Your task to perform on an android device: Search for macbook air on amazon.com, select the first entry, add it to the cart, then select checkout. Image 0: 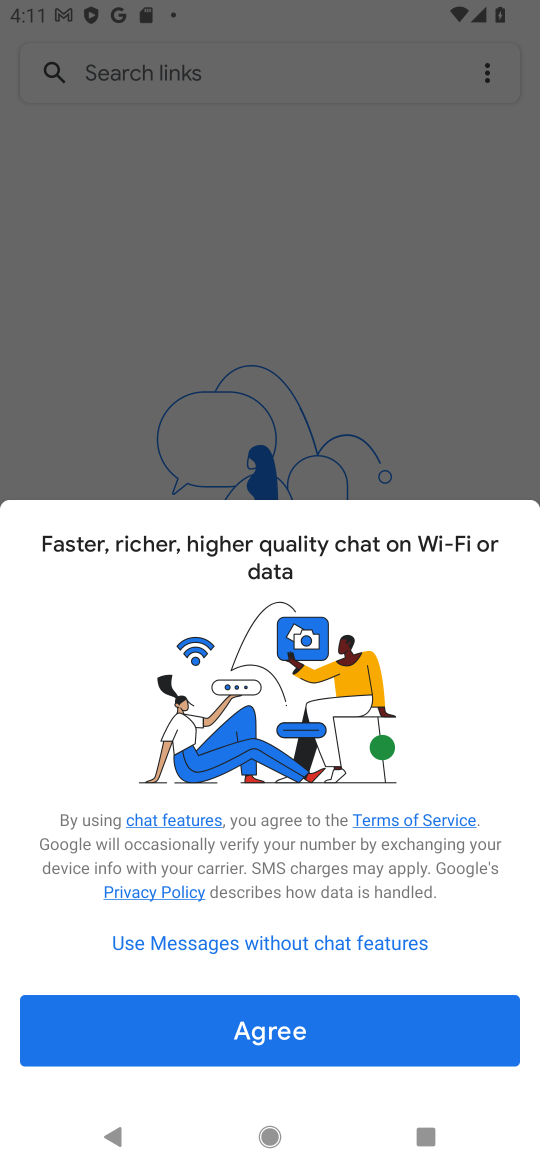
Step 0: press home button
Your task to perform on an android device: Search for macbook air on amazon.com, select the first entry, add it to the cart, then select checkout. Image 1: 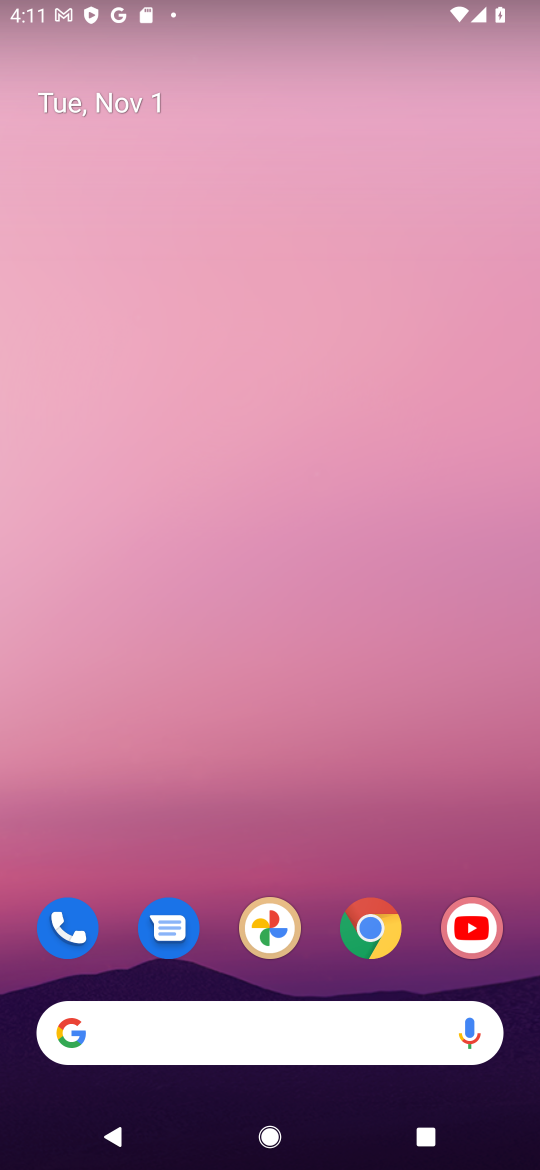
Step 1: click (380, 947)
Your task to perform on an android device: Search for macbook air on amazon.com, select the first entry, add it to the cart, then select checkout. Image 2: 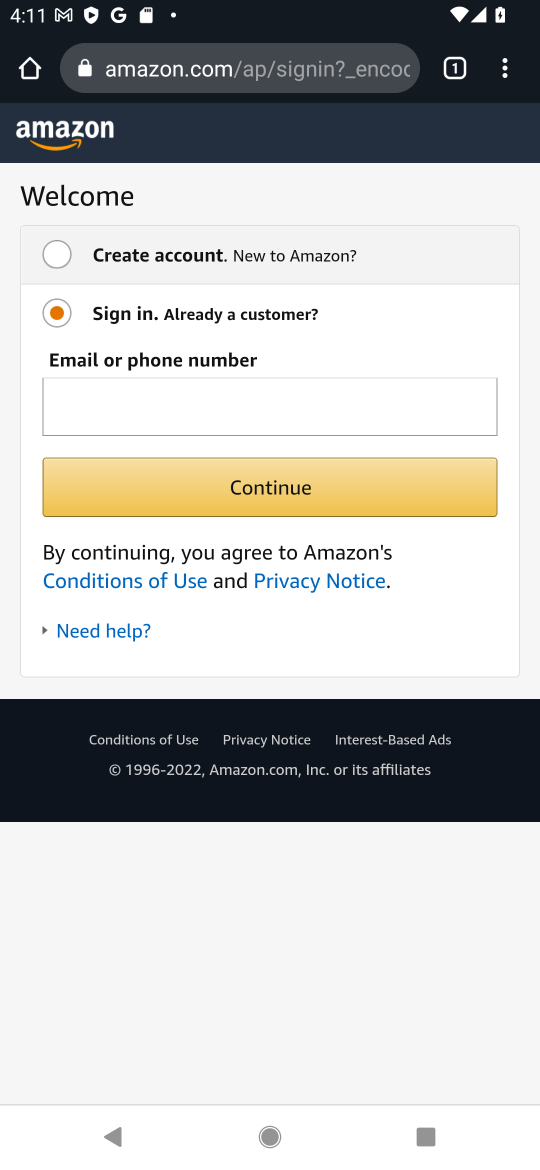
Step 2: click (243, 73)
Your task to perform on an android device: Search for macbook air on amazon.com, select the first entry, add it to the cart, then select checkout. Image 3: 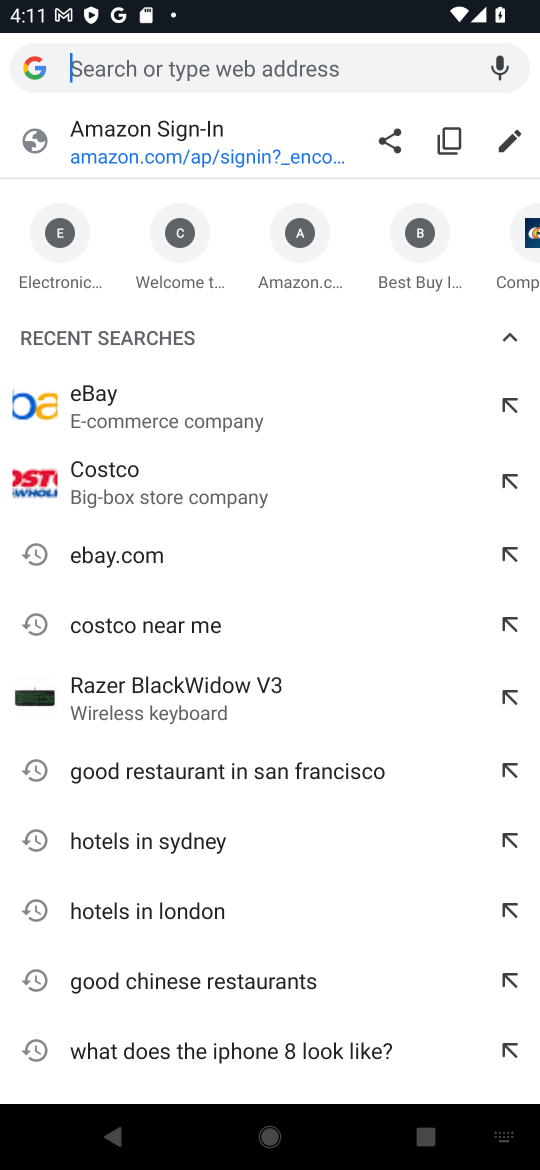
Step 3: type "amazon.com"
Your task to perform on an android device: Search for macbook air on amazon.com, select the first entry, add it to the cart, then select checkout. Image 4: 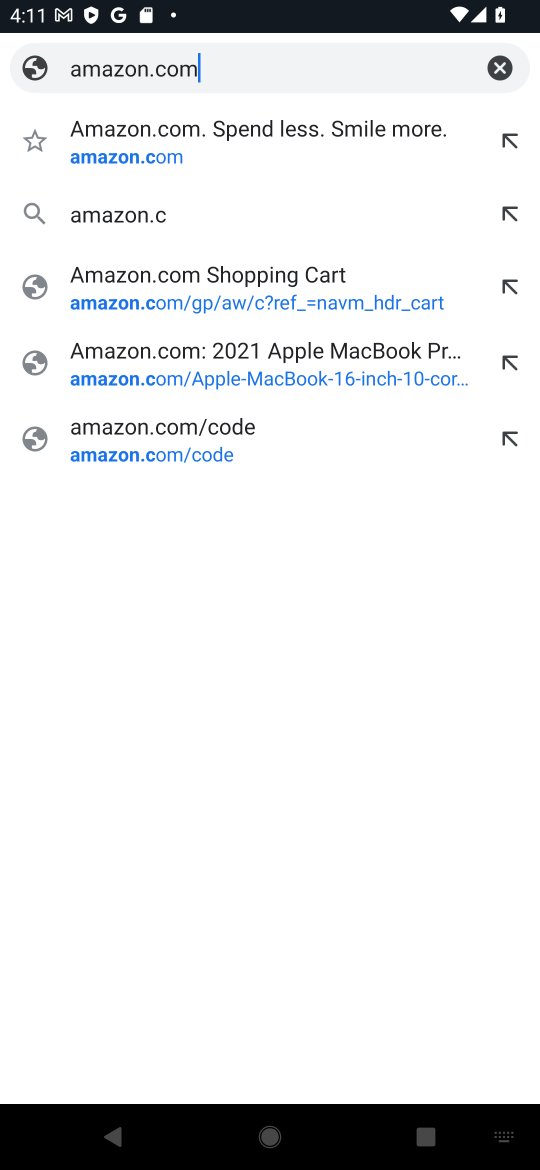
Step 4: type ""
Your task to perform on an android device: Search for macbook air on amazon.com, select the first entry, add it to the cart, then select checkout. Image 5: 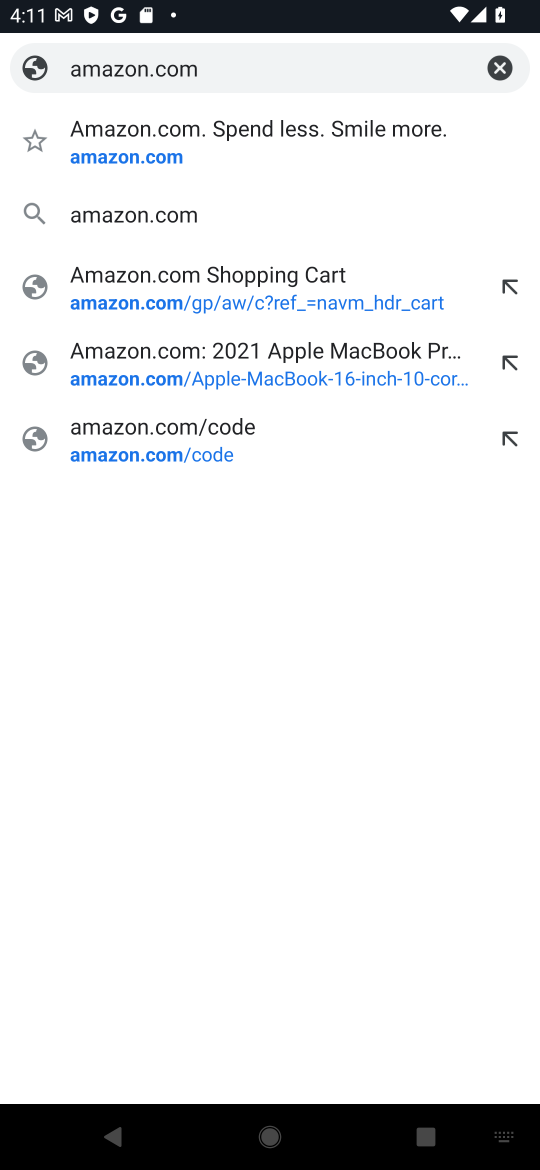
Step 5: press enter
Your task to perform on an android device: Search for macbook air on amazon.com, select the first entry, add it to the cart, then select checkout. Image 6: 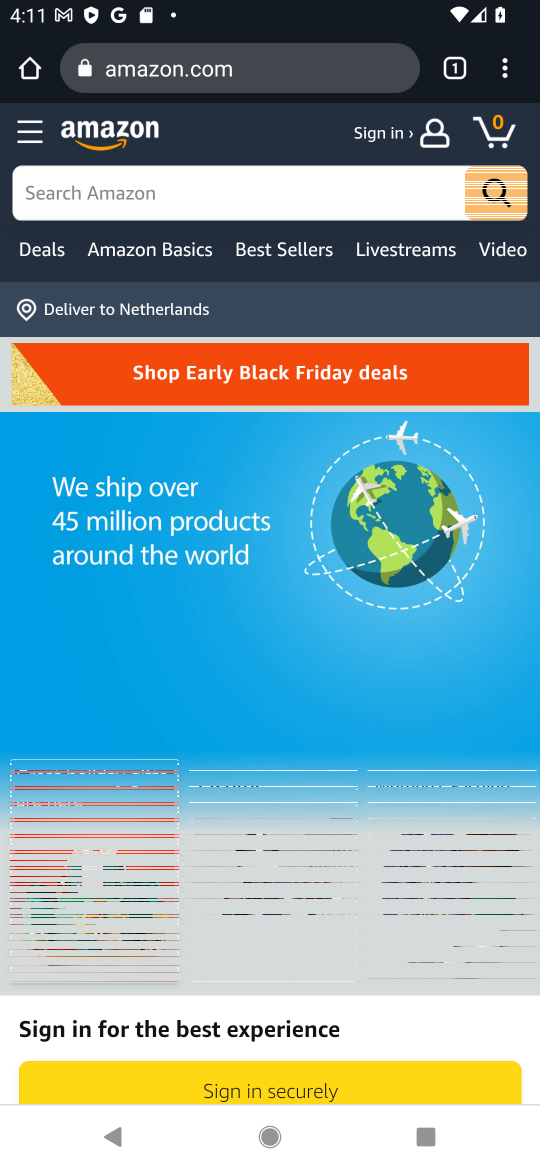
Step 6: click (205, 184)
Your task to perform on an android device: Search for macbook air on amazon.com, select the first entry, add it to the cart, then select checkout. Image 7: 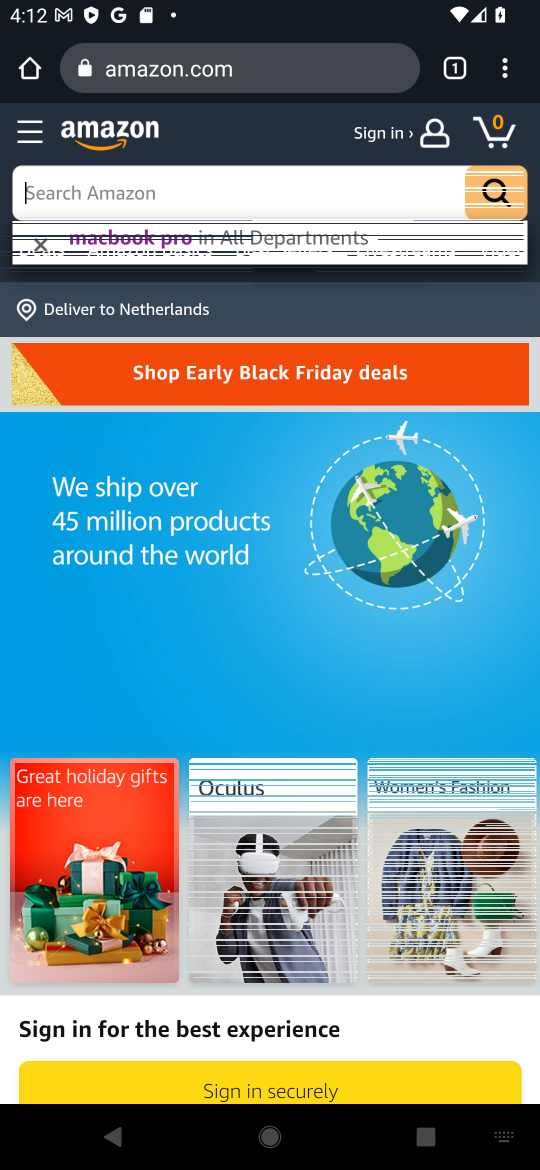
Step 7: type "macbook air"
Your task to perform on an android device: Search for macbook air on amazon.com, select the first entry, add it to the cart, then select checkout. Image 8: 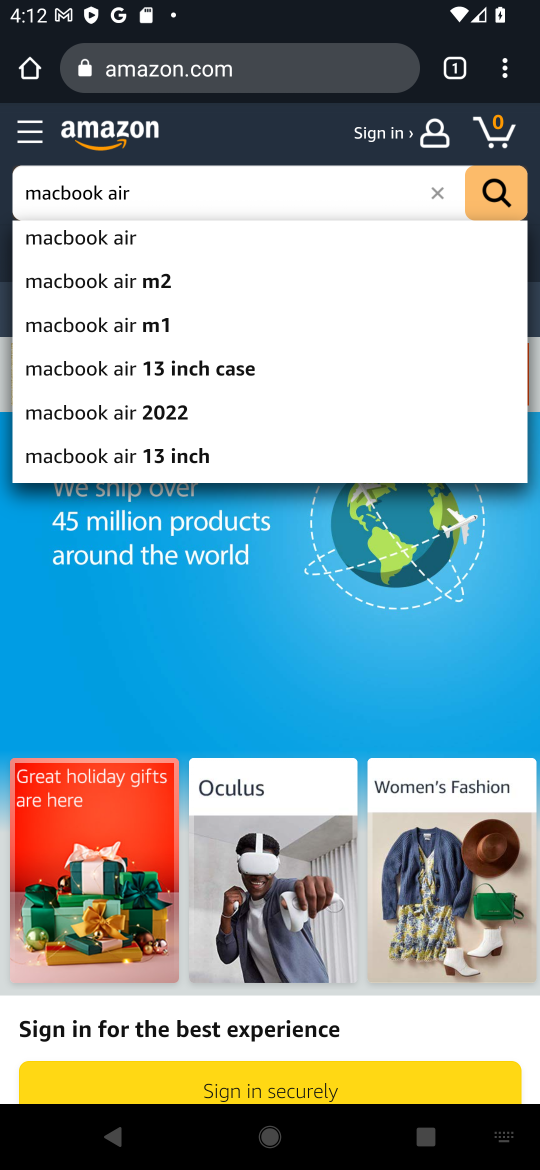
Step 8: click (497, 198)
Your task to perform on an android device: Search for macbook air on amazon.com, select the first entry, add it to the cart, then select checkout. Image 9: 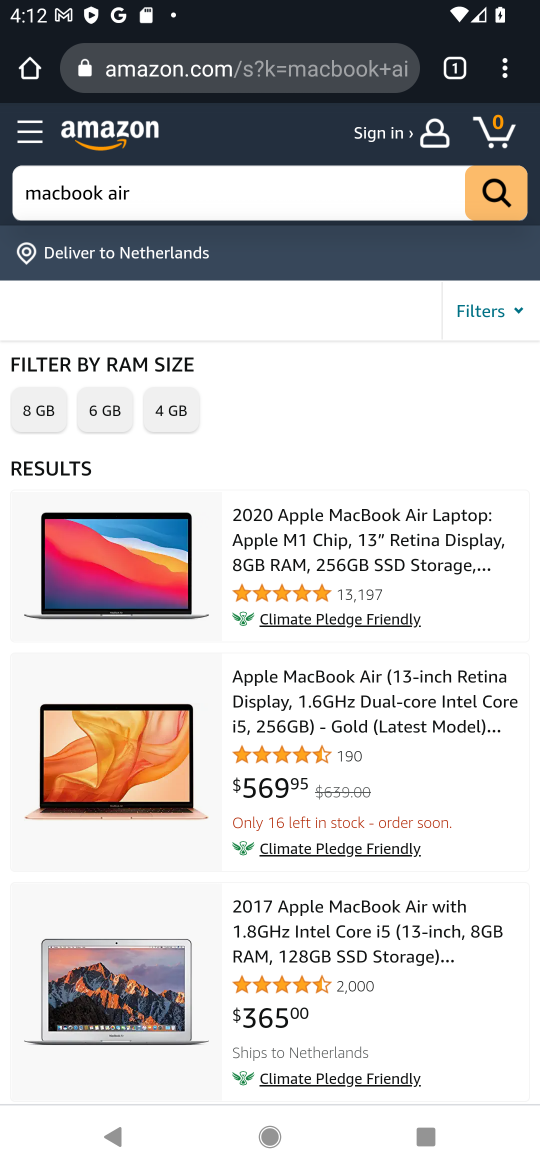
Step 9: click (378, 531)
Your task to perform on an android device: Search for macbook air on amazon.com, select the first entry, add it to the cart, then select checkout. Image 10: 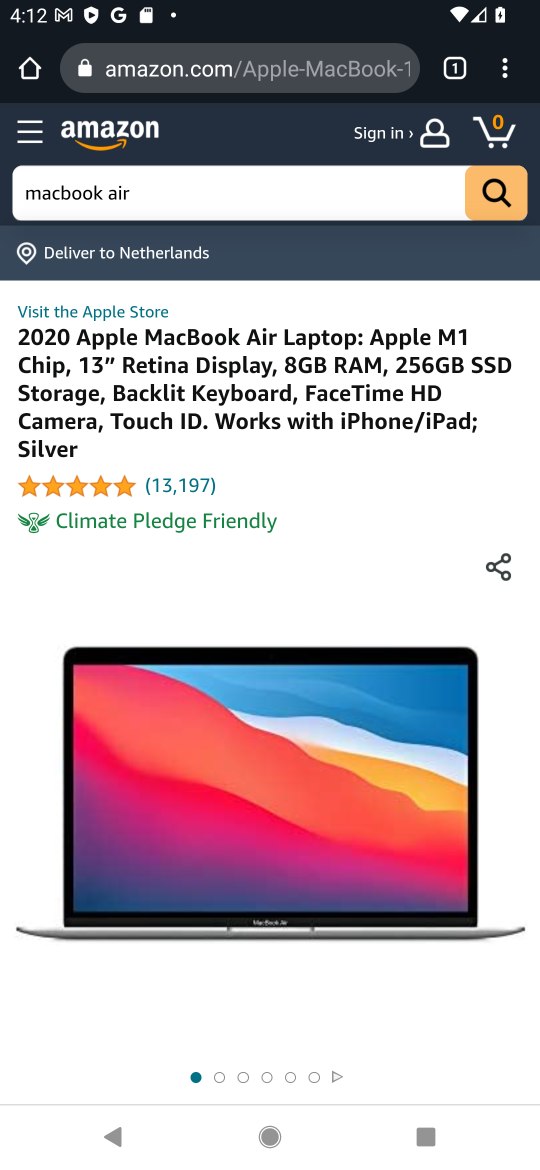
Step 10: drag from (307, 719) to (268, 290)
Your task to perform on an android device: Search for macbook air on amazon.com, select the first entry, add it to the cart, then select checkout. Image 11: 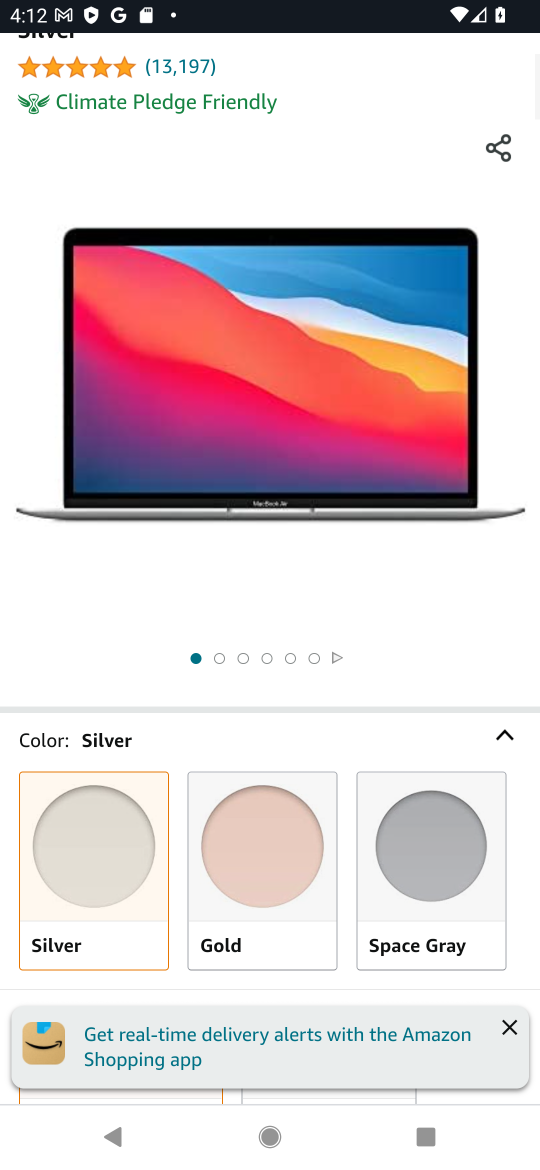
Step 11: drag from (286, 901) to (256, 564)
Your task to perform on an android device: Search for macbook air on amazon.com, select the first entry, add it to the cart, then select checkout. Image 12: 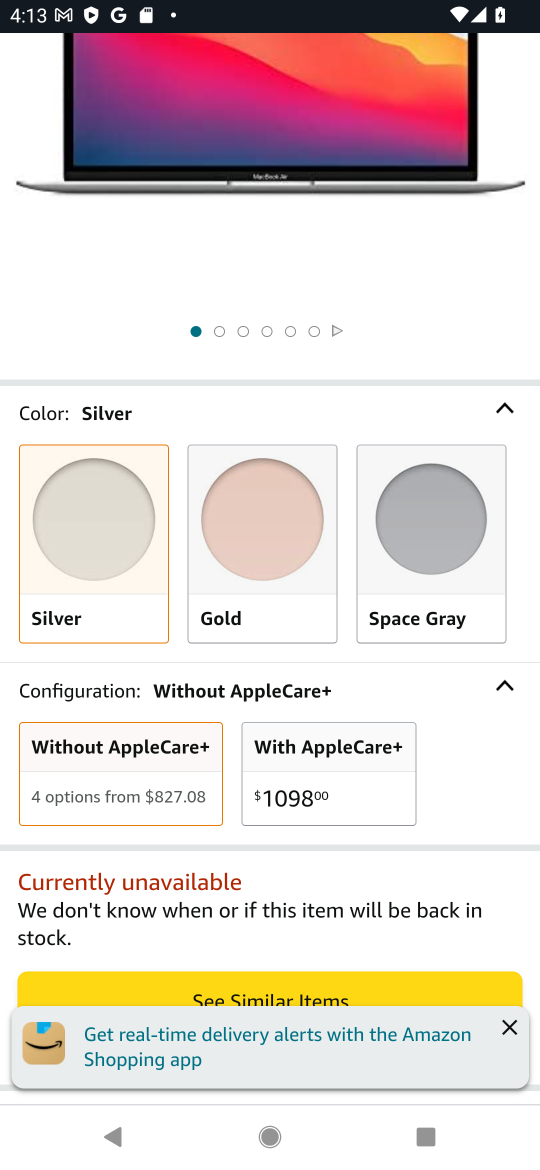
Step 12: drag from (248, 951) to (252, 879)
Your task to perform on an android device: Search for macbook air on amazon.com, select the first entry, add it to the cart, then select checkout. Image 13: 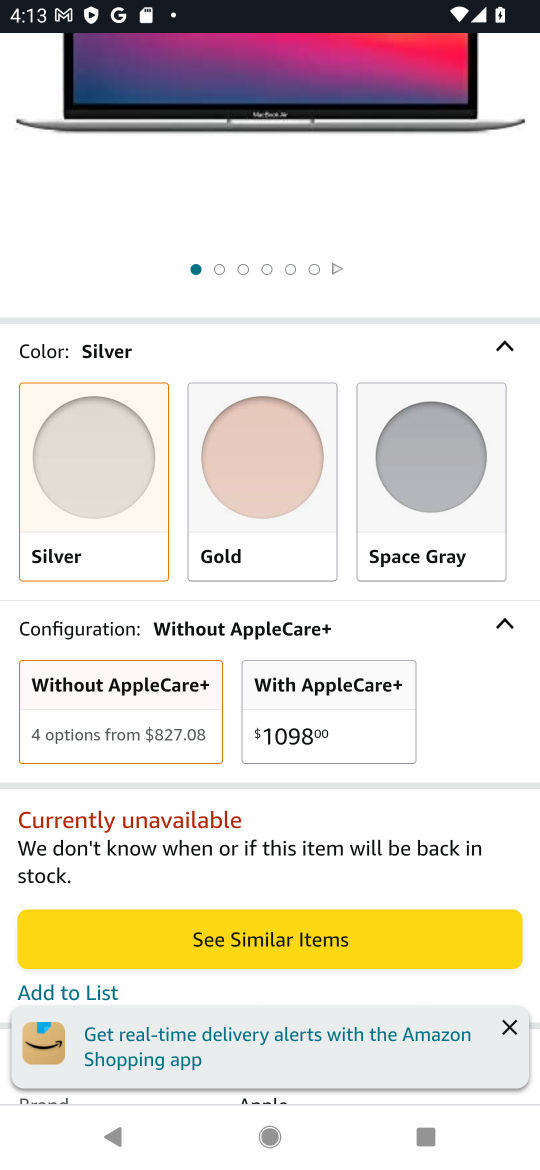
Step 13: click (344, 729)
Your task to perform on an android device: Search for macbook air on amazon.com, select the first entry, add it to the cart, then select checkout. Image 14: 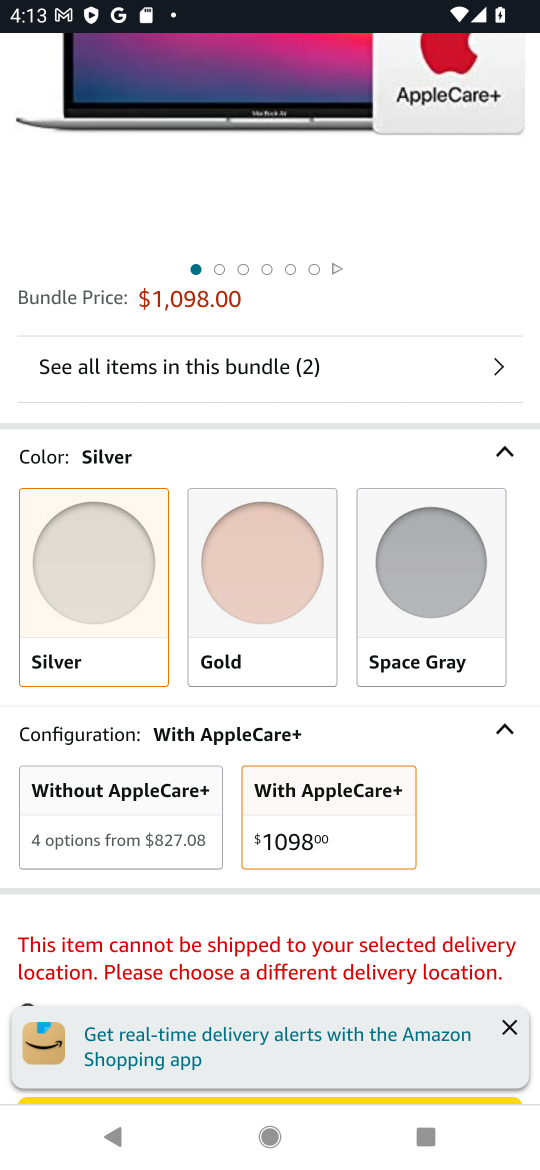
Step 14: click (253, 650)
Your task to perform on an android device: Search for macbook air on amazon.com, select the first entry, add it to the cart, then select checkout. Image 15: 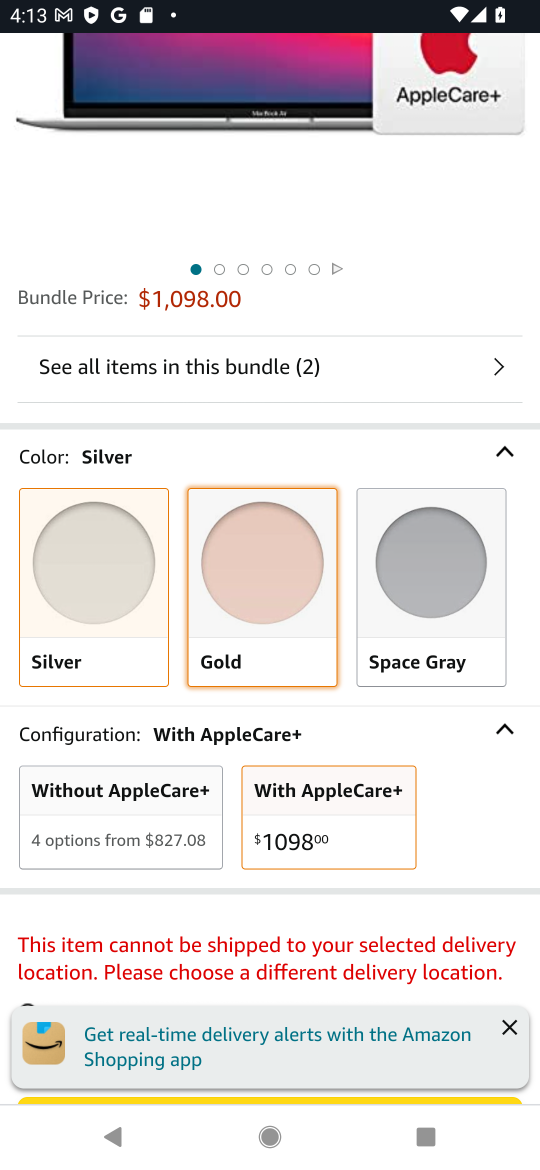
Step 15: click (418, 648)
Your task to perform on an android device: Search for macbook air on amazon.com, select the first entry, add it to the cart, then select checkout. Image 16: 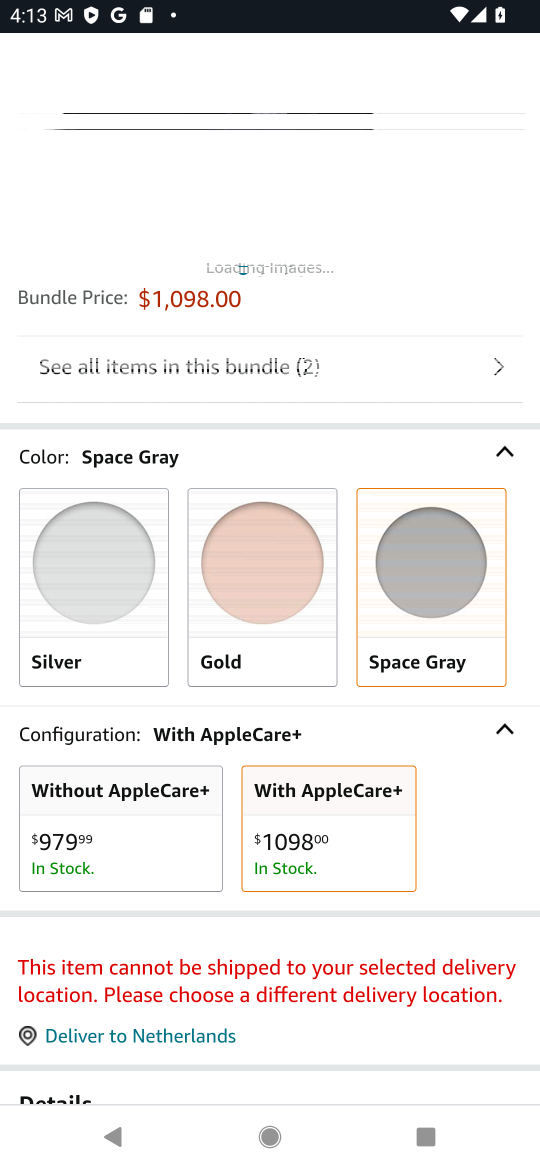
Step 16: drag from (389, 896) to (383, 577)
Your task to perform on an android device: Search for macbook air on amazon.com, select the first entry, add it to the cart, then select checkout. Image 17: 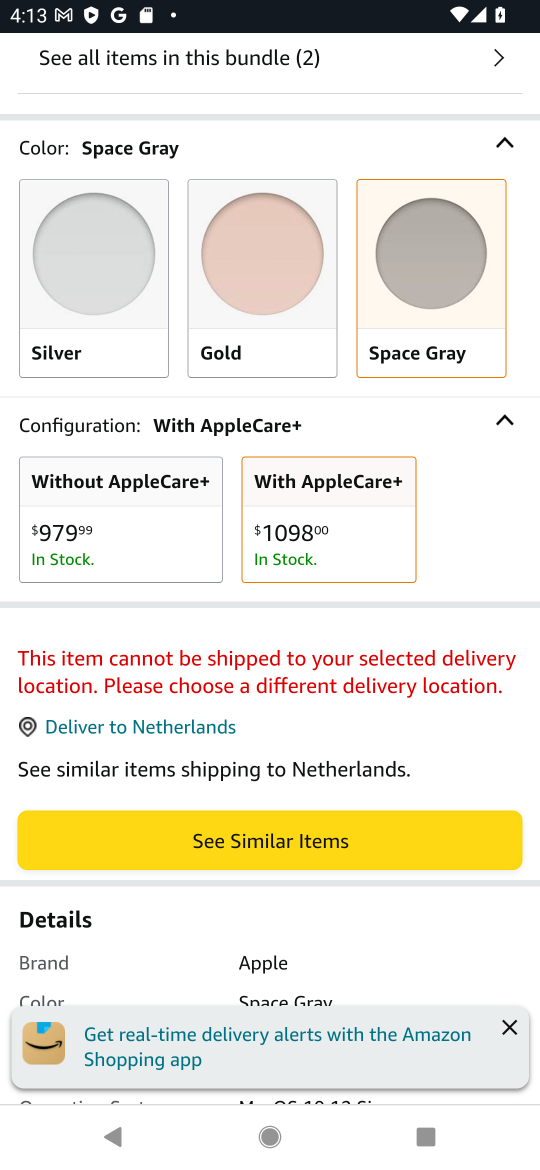
Step 17: click (157, 728)
Your task to perform on an android device: Search for macbook air on amazon.com, select the first entry, add it to the cart, then select checkout. Image 18: 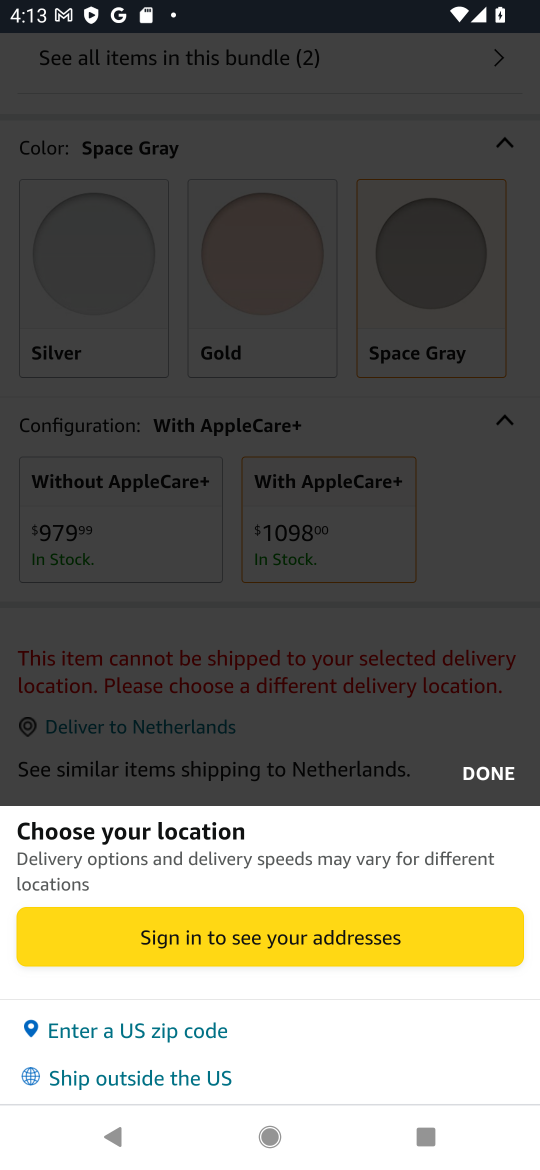
Step 18: click (161, 1025)
Your task to perform on an android device: Search for macbook air on amazon.com, select the first entry, add it to the cart, then select checkout. Image 19: 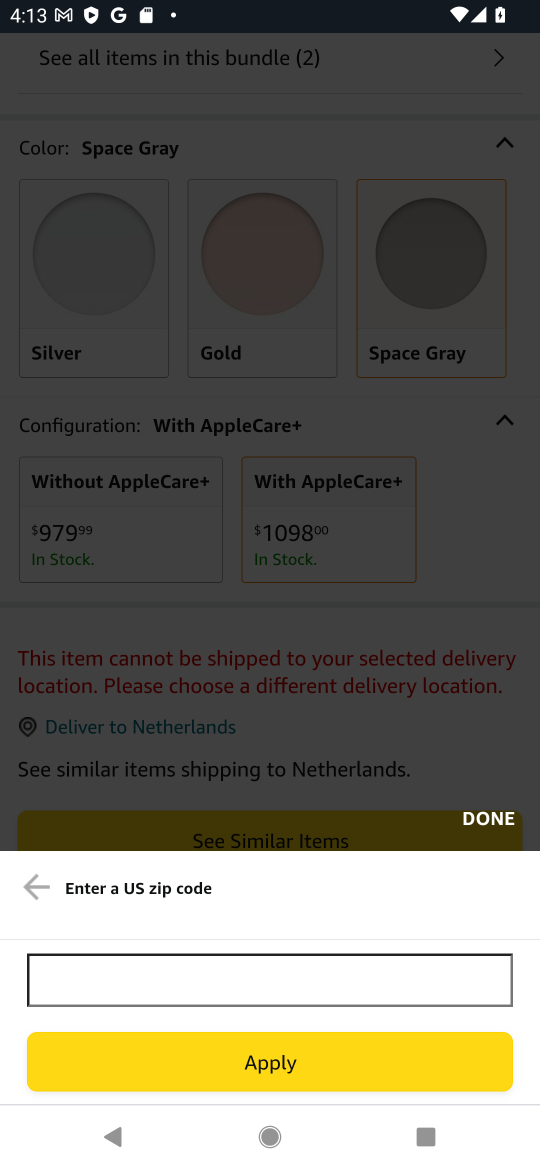
Step 19: click (495, 827)
Your task to perform on an android device: Search for macbook air on amazon.com, select the first entry, add it to the cart, then select checkout. Image 20: 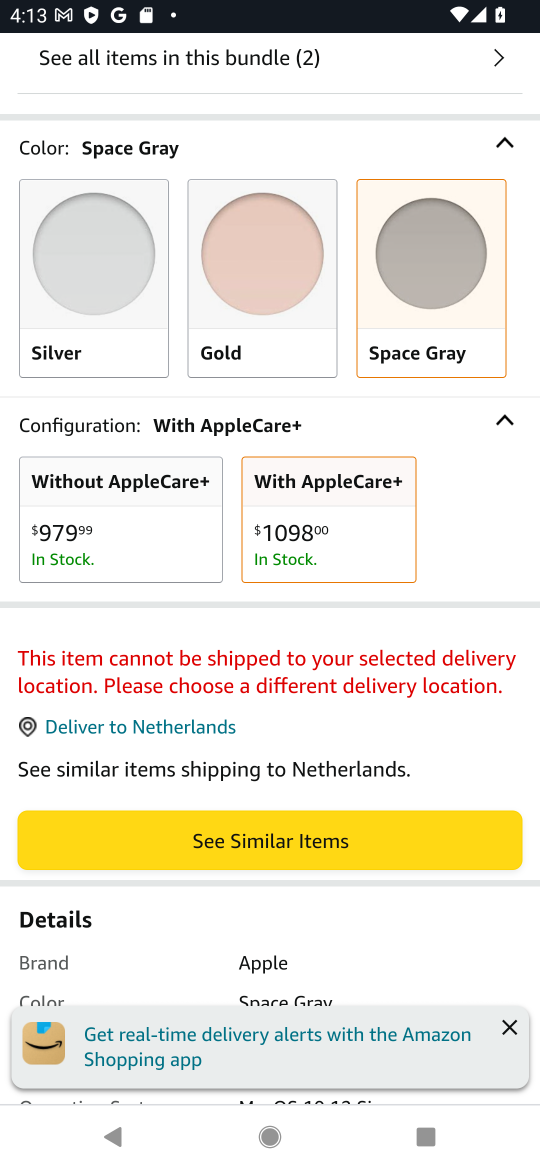
Step 20: task complete